Your task to perform on an android device: clear all cookies in the chrome app Image 0: 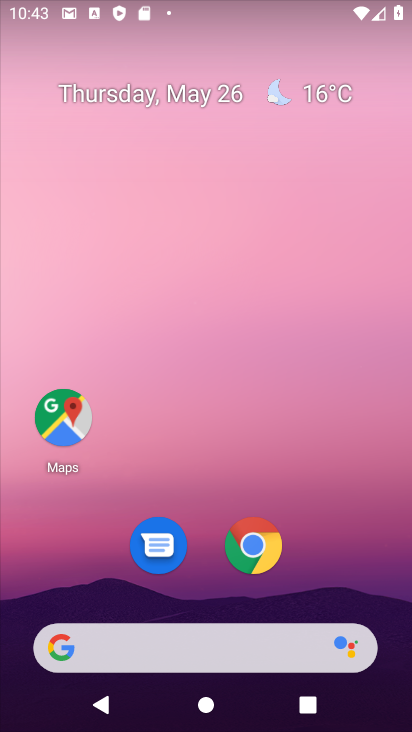
Step 0: press home button
Your task to perform on an android device: clear all cookies in the chrome app Image 1: 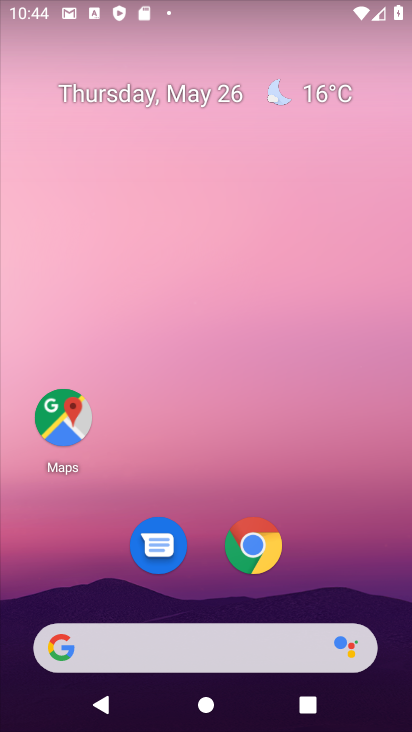
Step 1: click (258, 547)
Your task to perform on an android device: clear all cookies in the chrome app Image 2: 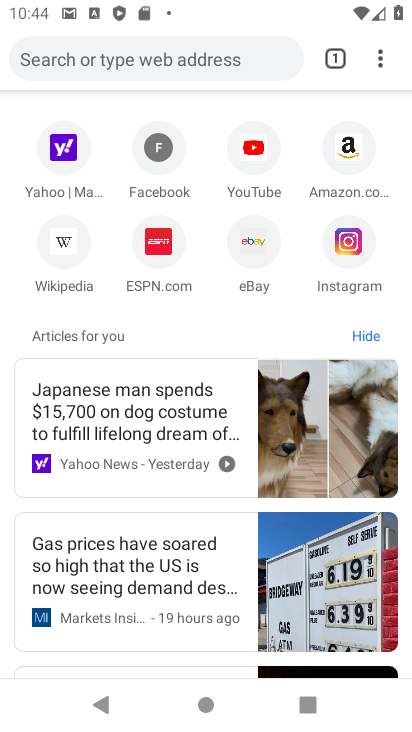
Step 2: drag from (379, 55) to (160, 491)
Your task to perform on an android device: clear all cookies in the chrome app Image 3: 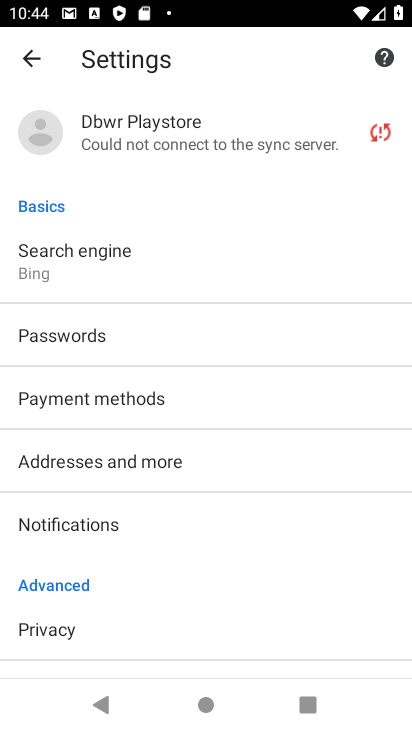
Step 3: click (46, 633)
Your task to perform on an android device: clear all cookies in the chrome app Image 4: 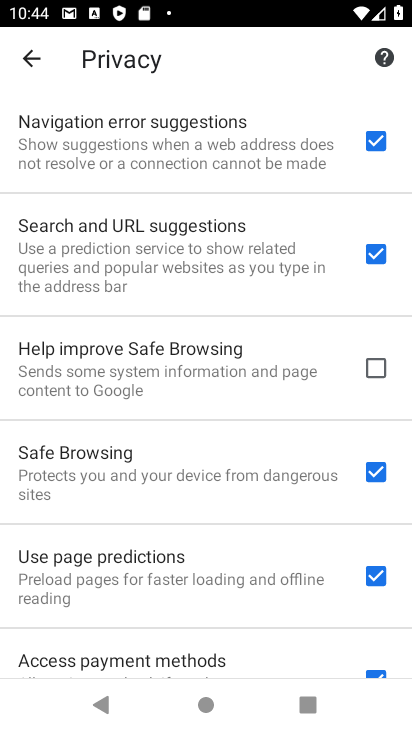
Step 4: drag from (188, 537) to (261, 27)
Your task to perform on an android device: clear all cookies in the chrome app Image 5: 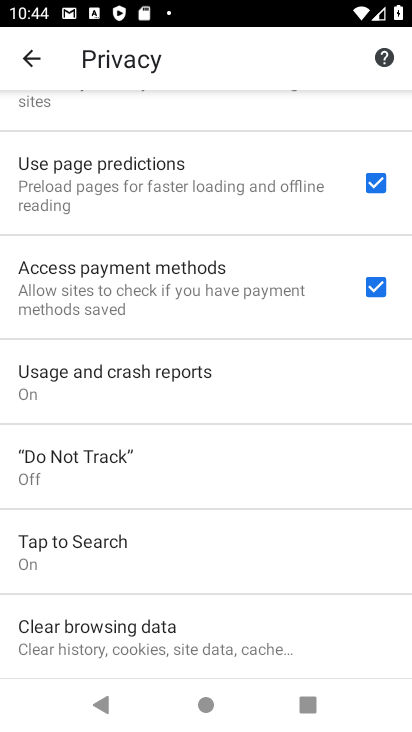
Step 5: click (113, 633)
Your task to perform on an android device: clear all cookies in the chrome app Image 6: 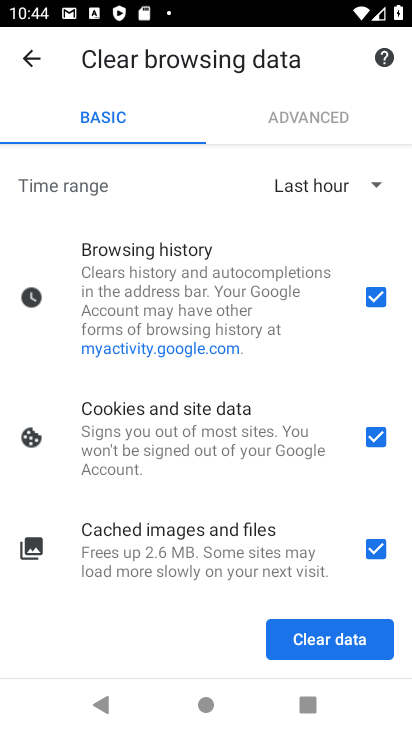
Step 6: click (379, 544)
Your task to perform on an android device: clear all cookies in the chrome app Image 7: 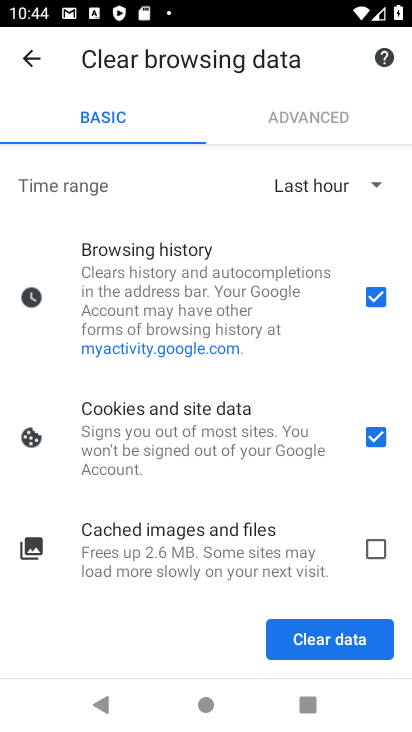
Step 7: click (363, 292)
Your task to perform on an android device: clear all cookies in the chrome app Image 8: 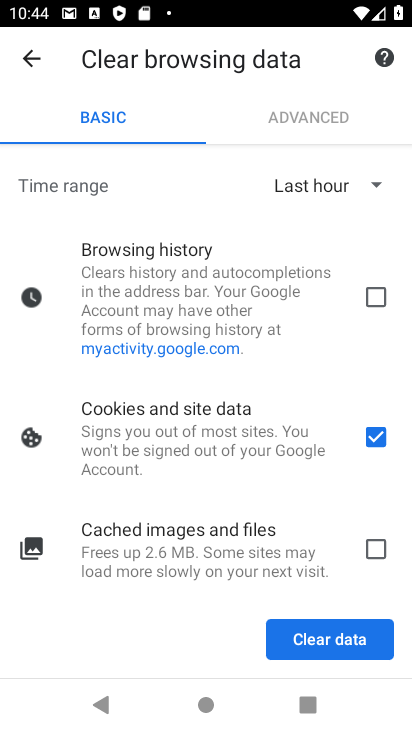
Step 8: click (287, 644)
Your task to perform on an android device: clear all cookies in the chrome app Image 9: 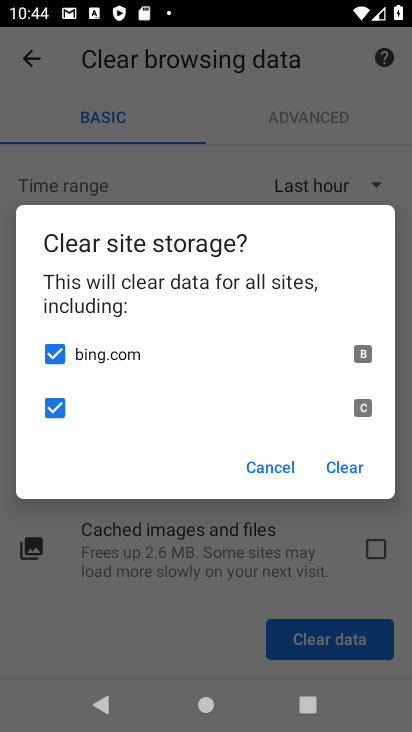
Step 9: click (350, 467)
Your task to perform on an android device: clear all cookies in the chrome app Image 10: 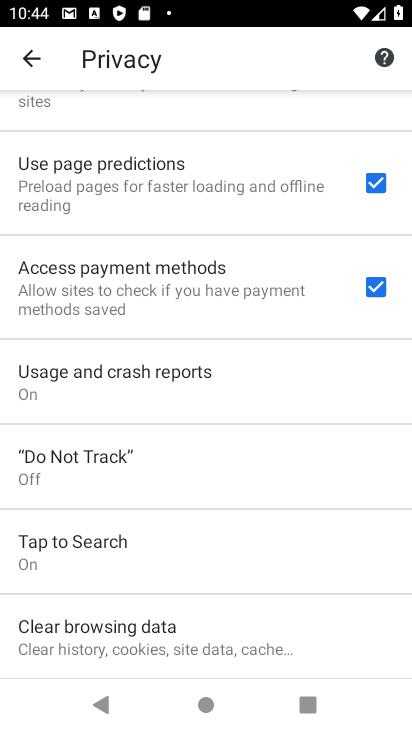
Step 10: task complete